Your task to perform on an android device: see tabs open on other devices in the chrome app Image 0: 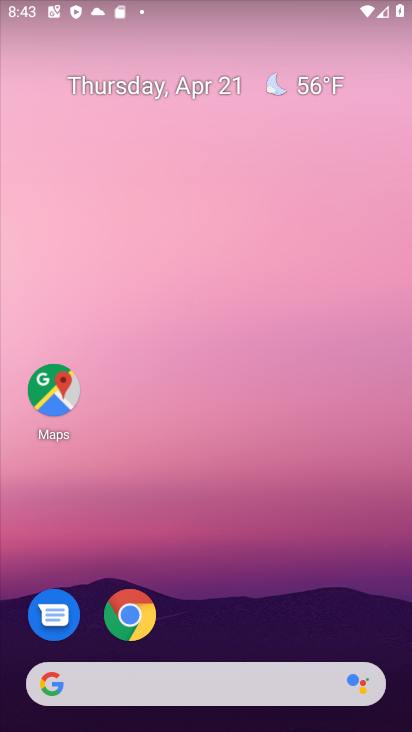
Step 0: click (135, 615)
Your task to perform on an android device: see tabs open on other devices in the chrome app Image 1: 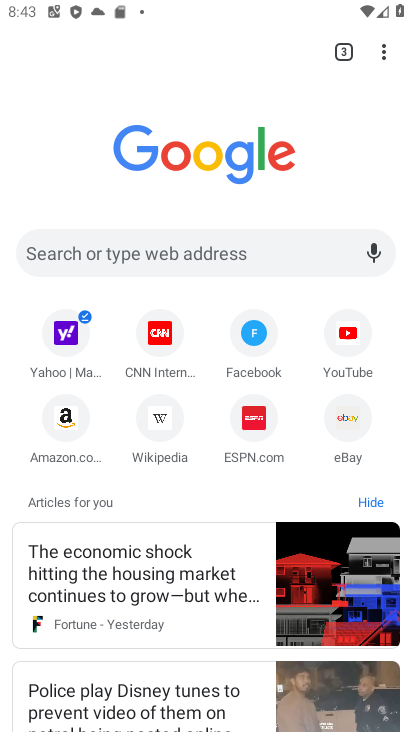
Step 1: click (348, 54)
Your task to perform on an android device: see tabs open on other devices in the chrome app Image 2: 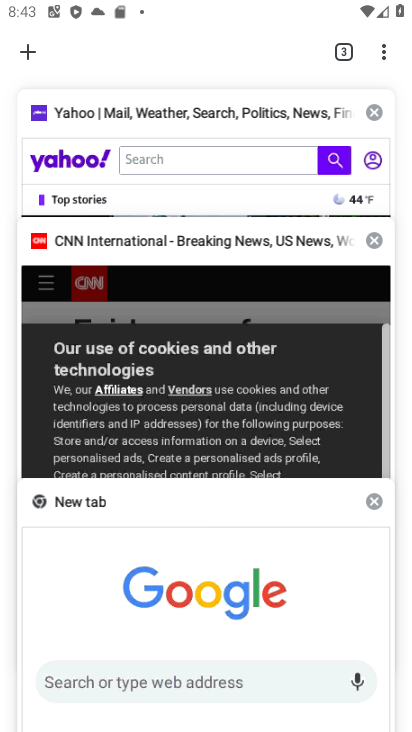
Step 2: task complete